Your task to perform on an android device: Open Youtube and go to the subscriptions tab Image 0: 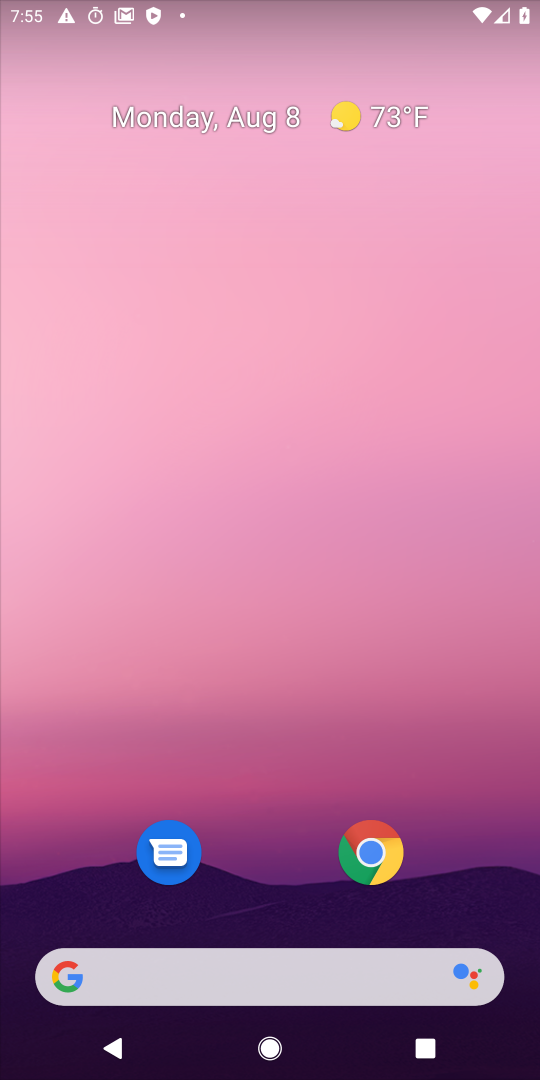
Step 0: press home button
Your task to perform on an android device: Open Youtube and go to the subscriptions tab Image 1: 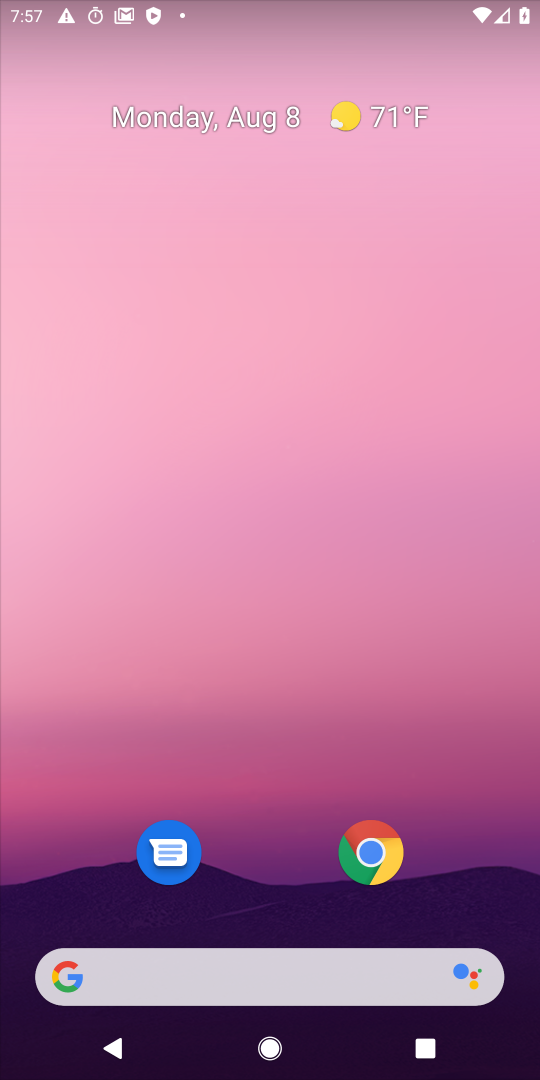
Step 1: drag from (65, 826) to (334, 87)
Your task to perform on an android device: Open Youtube and go to the subscriptions tab Image 2: 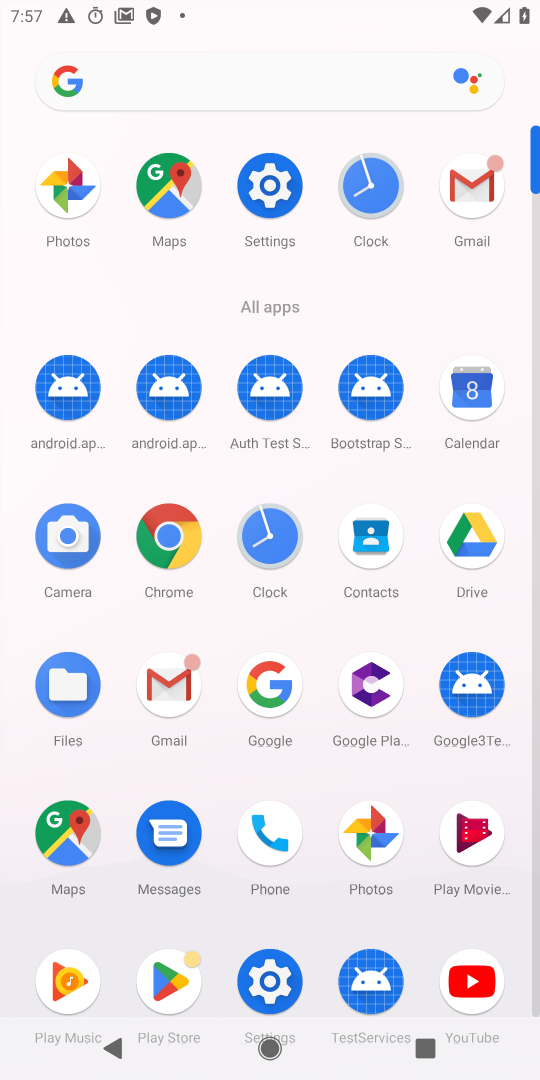
Step 2: click (494, 984)
Your task to perform on an android device: Open Youtube and go to the subscriptions tab Image 3: 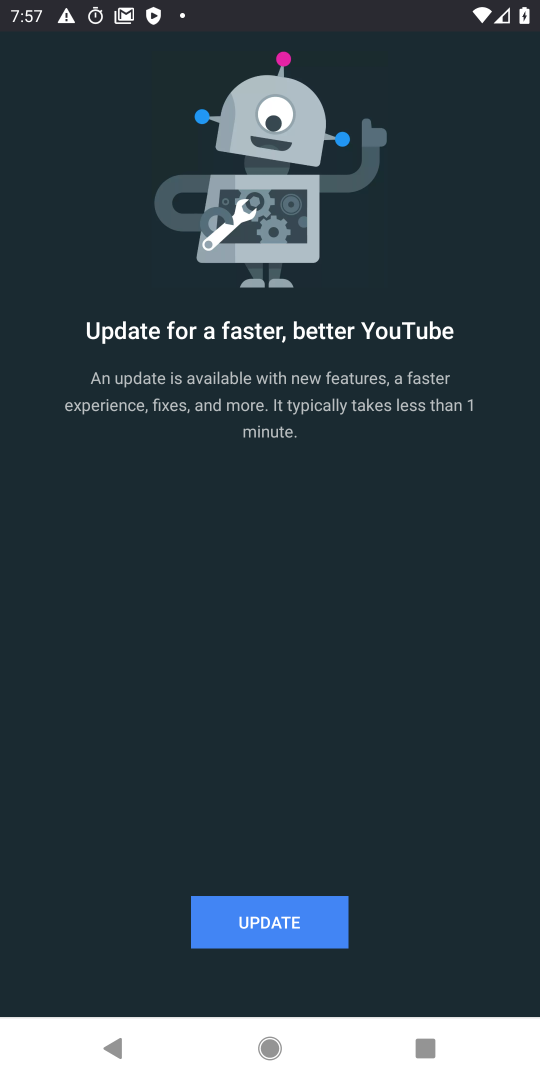
Step 3: task complete